Your task to perform on an android device: Open Google Maps and go to "Timeline" Image 0: 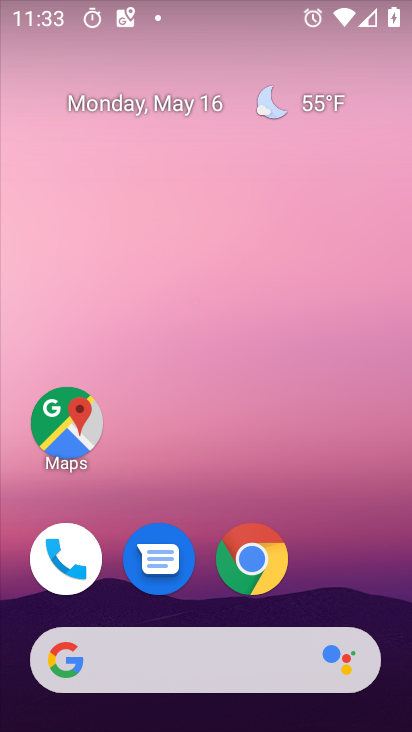
Step 0: click (86, 420)
Your task to perform on an android device: Open Google Maps and go to "Timeline" Image 1: 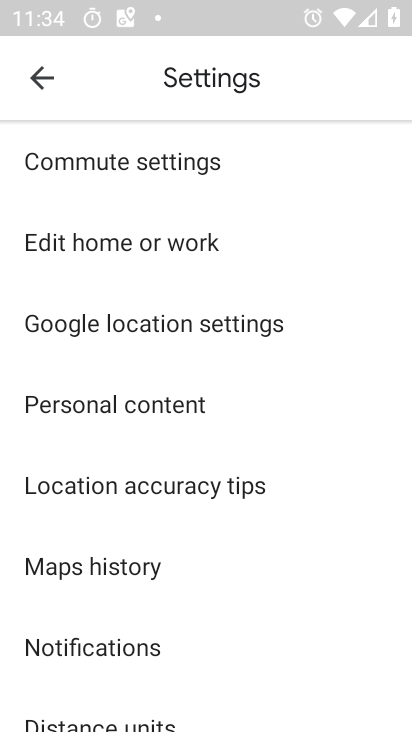
Step 1: click (58, 62)
Your task to perform on an android device: Open Google Maps and go to "Timeline" Image 2: 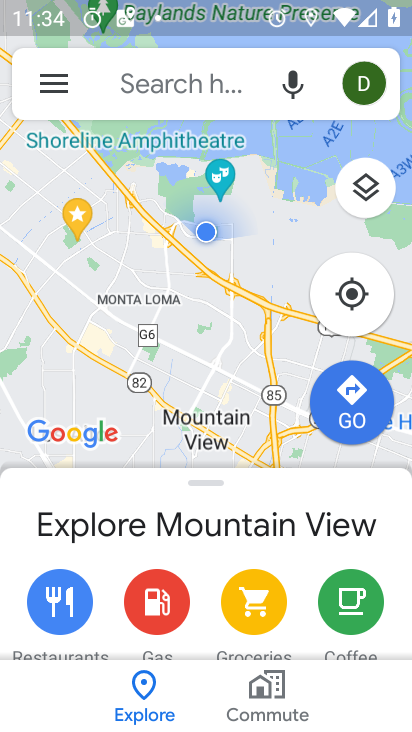
Step 2: click (58, 61)
Your task to perform on an android device: Open Google Maps and go to "Timeline" Image 3: 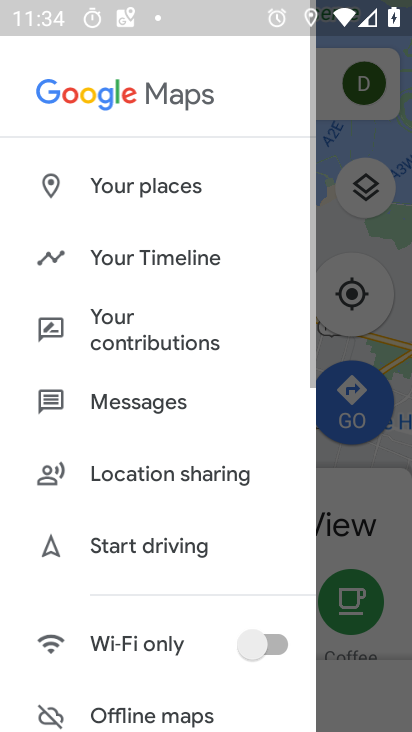
Step 3: click (55, 79)
Your task to perform on an android device: Open Google Maps and go to "Timeline" Image 4: 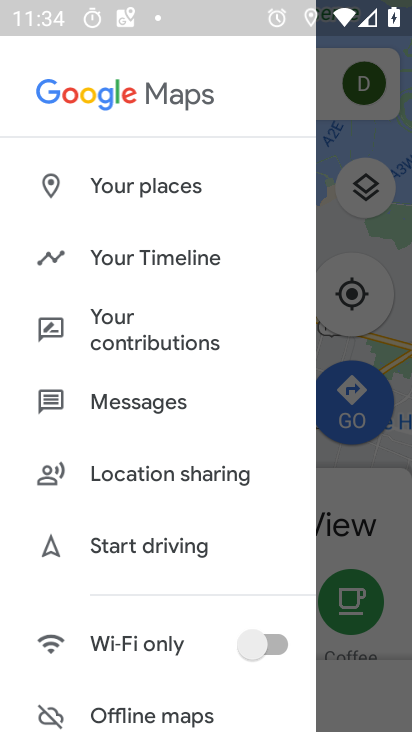
Step 4: drag from (196, 586) to (168, 675)
Your task to perform on an android device: Open Google Maps and go to "Timeline" Image 5: 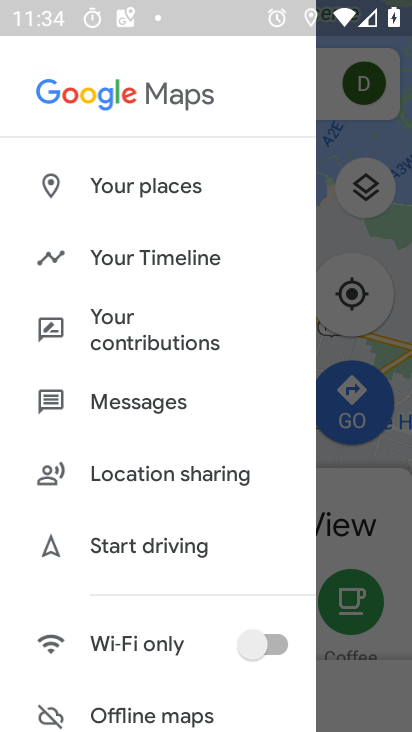
Step 5: click (128, 262)
Your task to perform on an android device: Open Google Maps and go to "Timeline" Image 6: 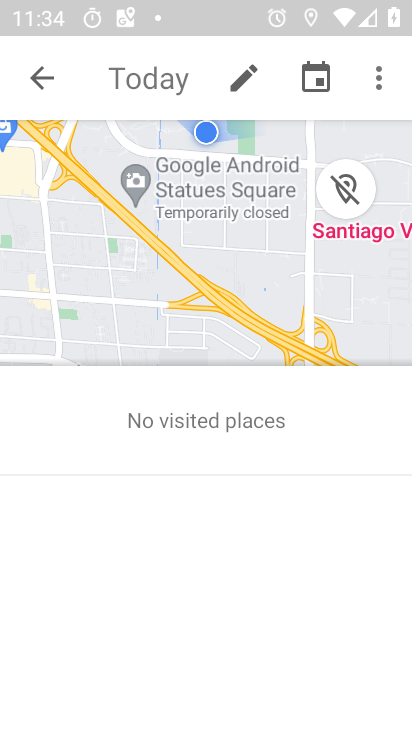
Step 6: task complete